Your task to perform on an android device: turn off notifications settings in the gmail app Image 0: 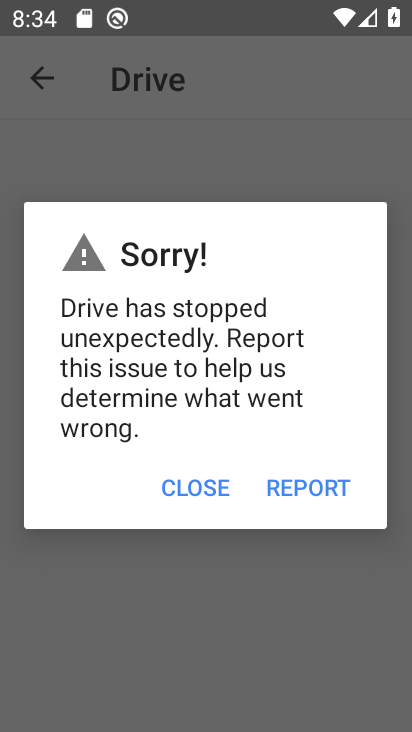
Step 0: press home button
Your task to perform on an android device: turn off notifications settings in the gmail app Image 1: 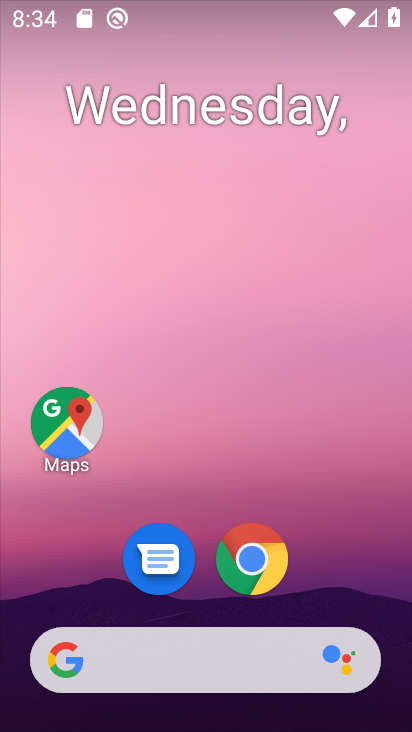
Step 1: drag from (388, 554) to (381, 100)
Your task to perform on an android device: turn off notifications settings in the gmail app Image 2: 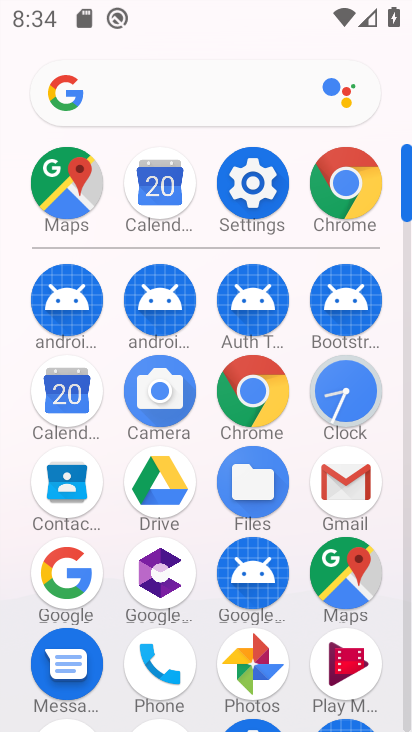
Step 2: drag from (292, 624) to (285, 280)
Your task to perform on an android device: turn off notifications settings in the gmail app Image 3: 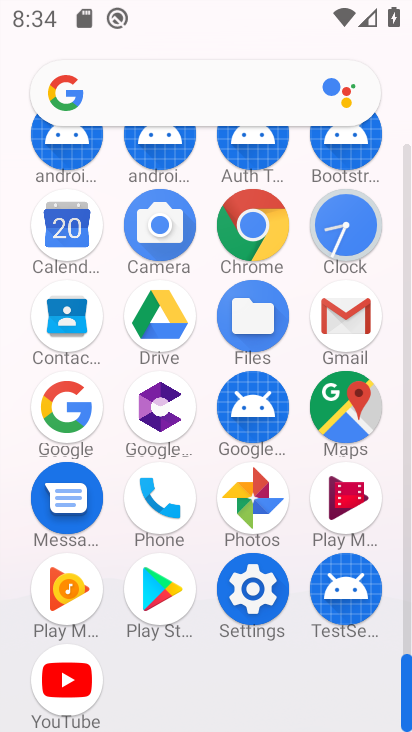
Step 3: click (352, 320)
Your task to perform on an android device: turn off notifications settings in the gmail app Image 4: 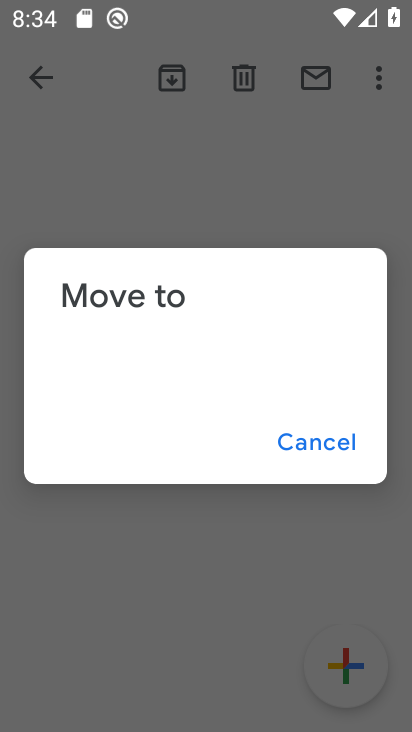
Step 4: click (326, 437)
Your task to perform on an android device: turn off notifications settings in the gmail app Image 5: 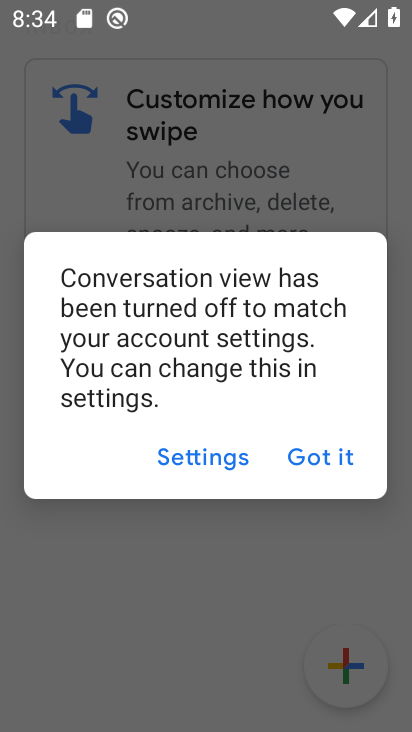
Step 5: click (336, 463)
Your task to perform on an android device: turn off notifications settings in the gmail app Image 6: 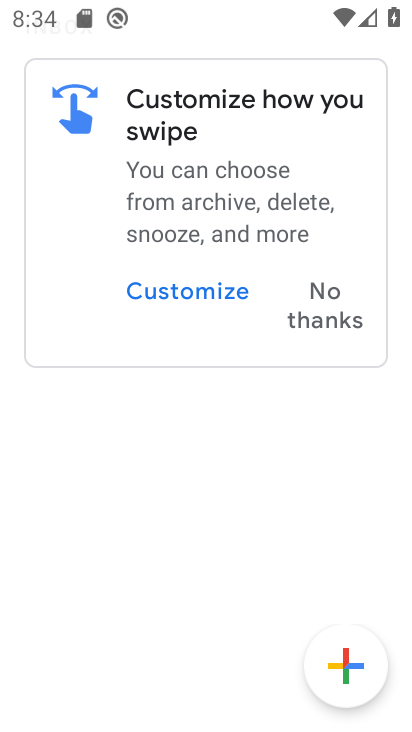
Step 6: click (331, 310)
Your task to perform on an android device: turn off notifications settings in the gmail app Image 7: 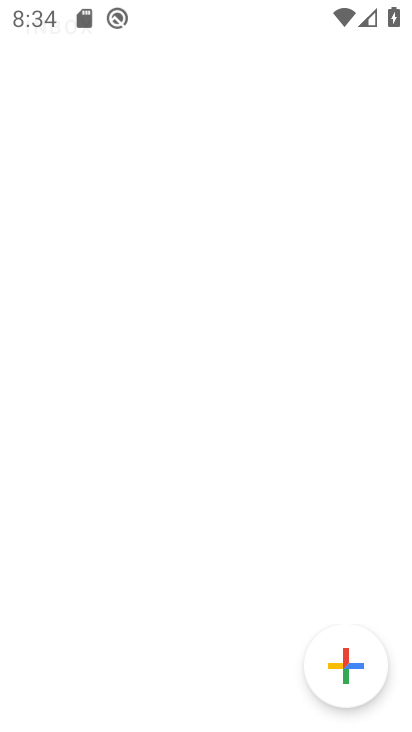
Step 7: press home button
Your task to perform on an android device: turn off notifications settings in the gmail app Image 8: 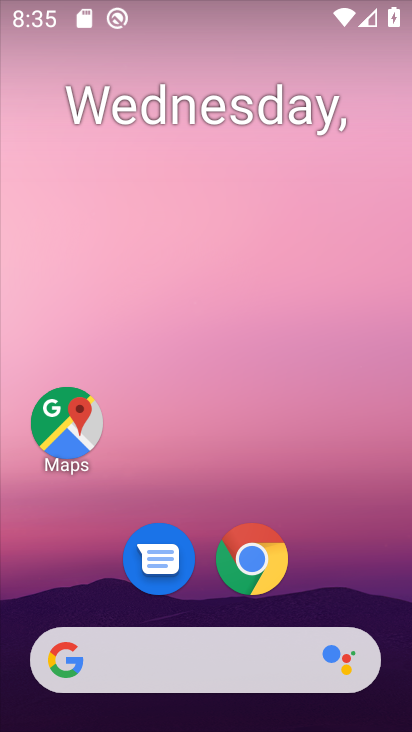
Step 8: drag from (312, 550) to (312, 159)
Your task to perform on an android device: turn off notifications settings in the gmail app Image 9: 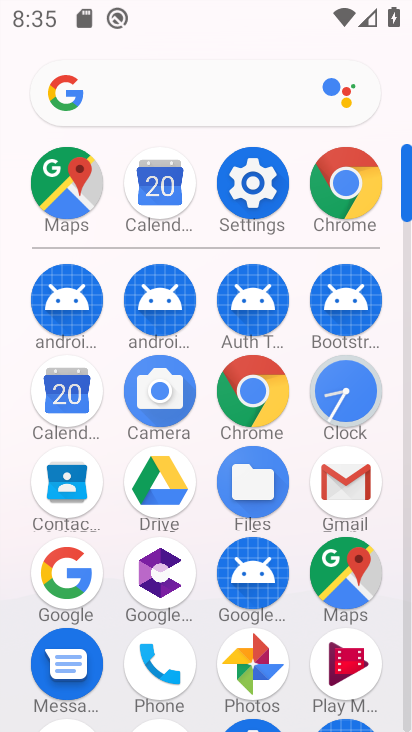
Step 9: click (377, 497)
Your task to perform on an android device: turn off notifications settings in the gmail app Image 10: 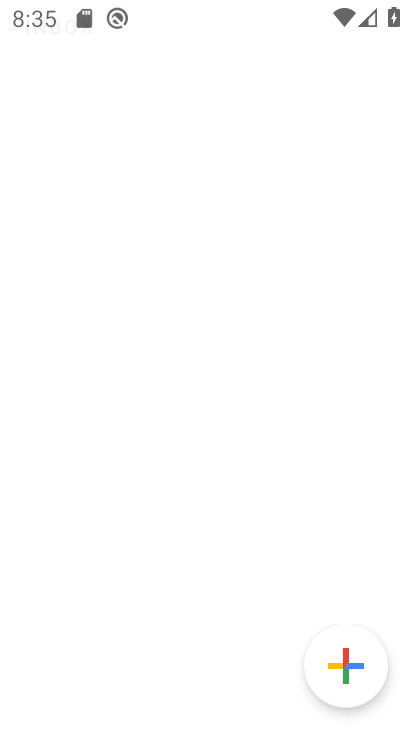
Step 10: press back button
Your task to perform on an android device: turn off notifications settings in the gmail app Image 11: 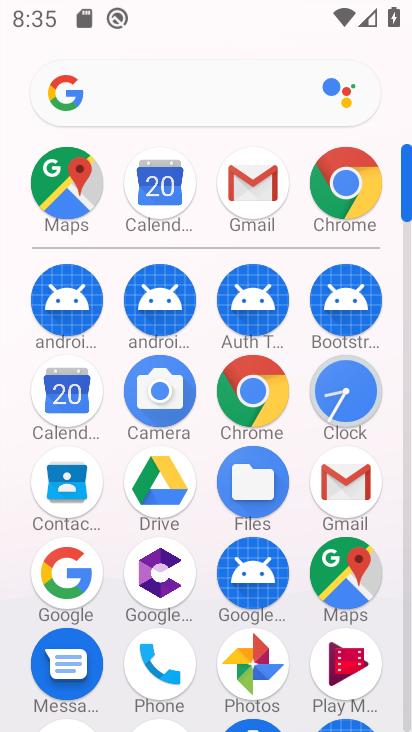
Step 11: click (344, 493)
Your task to perform on an android device: turn off notifications settings in the gmail app Image 12: 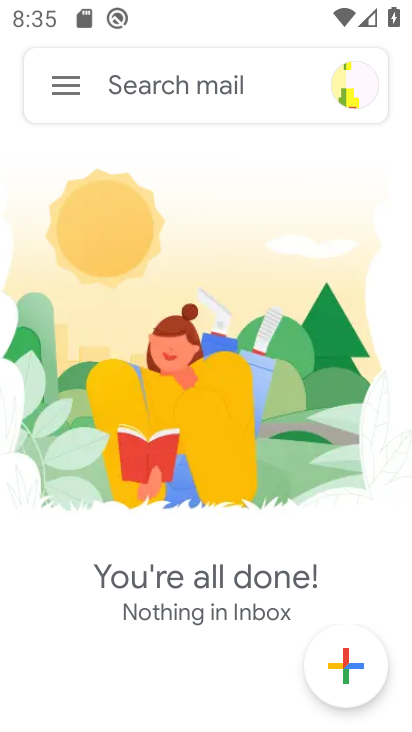
Step 12: click (49, 77)
Your task to perform on an android device: turn off notifications settings in the gmail app Image 13: 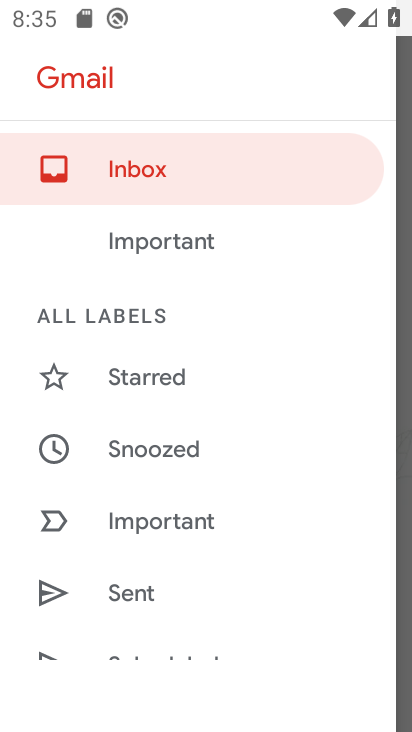
Step 13: drag from (199, 591) to (206, 251)
Your task to perform on an android device: turn off notifications settings in the gmail app Image 14: 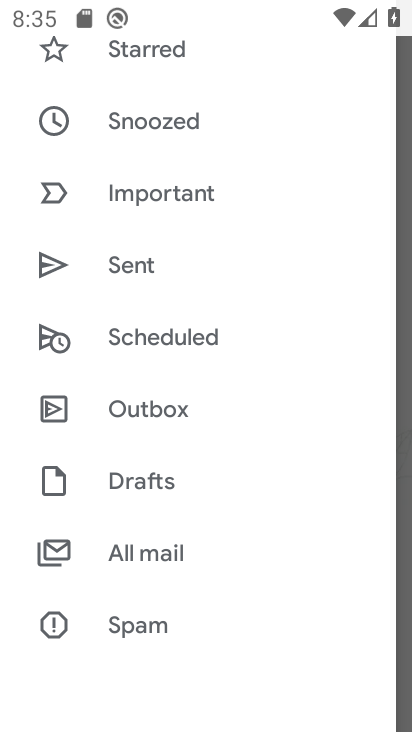
Step 14: drag from (209, 592) to (268, 248)
Your task to perform on an android device: turn off notifications settings in the gmail app Image 15: 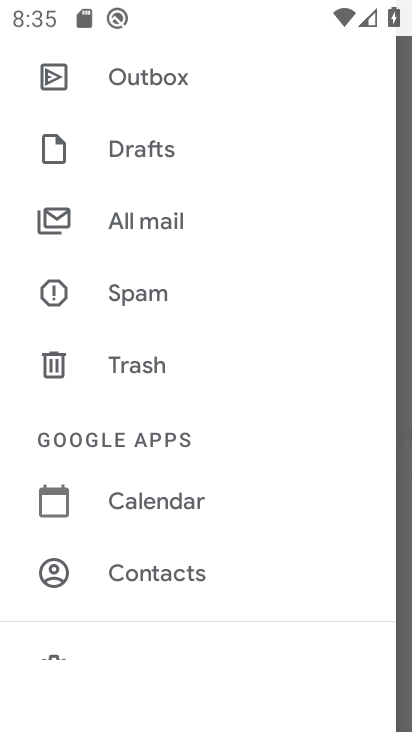
Step 15: drag from (235, 575) to (270, 271)
Your task to perform on an android device: turn off notifications settings in the gmail app Image 16: 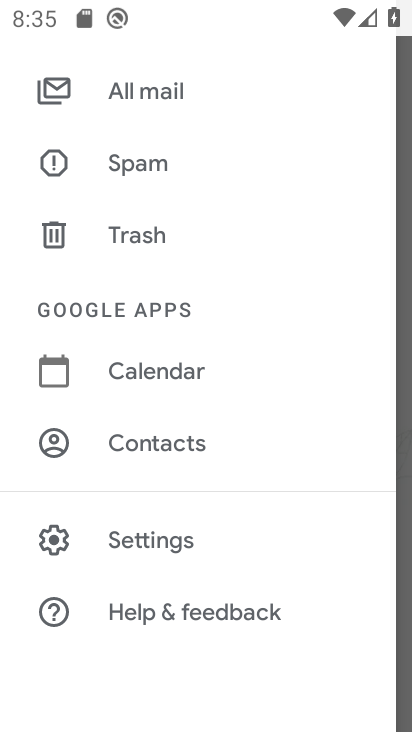
Step 16: click (157, 537)
Your task to perform on an android device: turn off notifications settings in the gmail app Image 17: 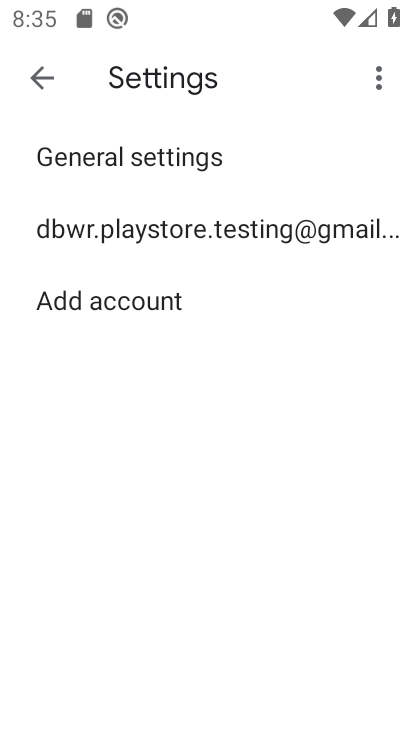
Step 17: click (295, 240)
Your task to perform on an android device: turn off notifications settings in the gmail app Image 18: 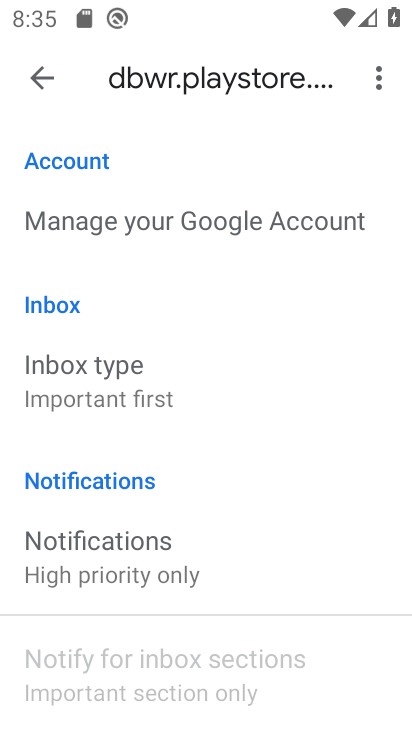
Step 18: click (138, 552)
Your task to perform on an android device: turn off notifications settings in the gmail app Image 19: 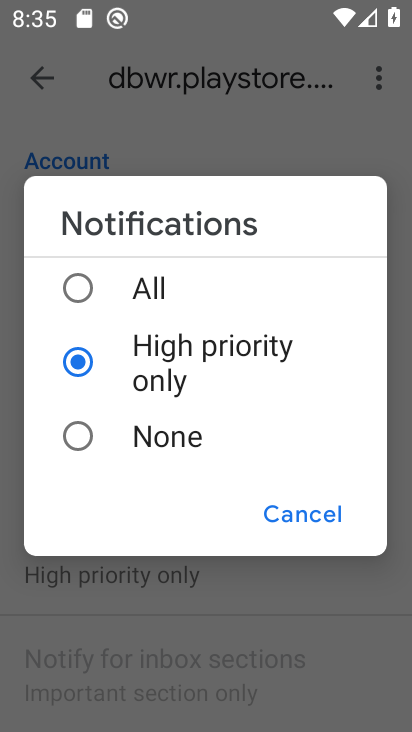
Step 19: click (139, 443)
Your task to perform on an android device: turn off notifications settings in the gmail app Image 20: 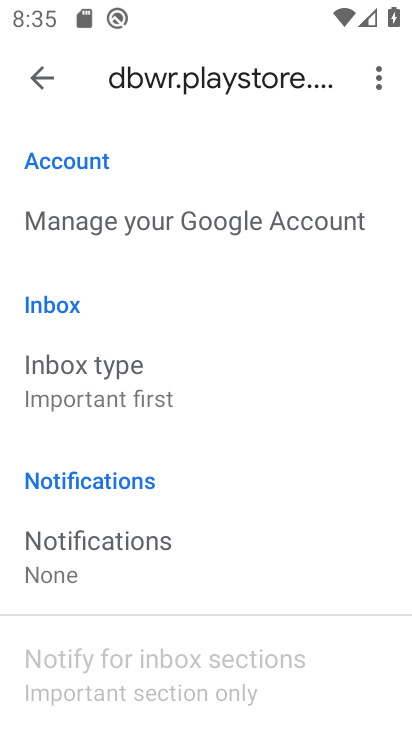
Step 20: task complete